Your task to perform on an android device: Open Google Maps and go to "Timeline" Image 0: 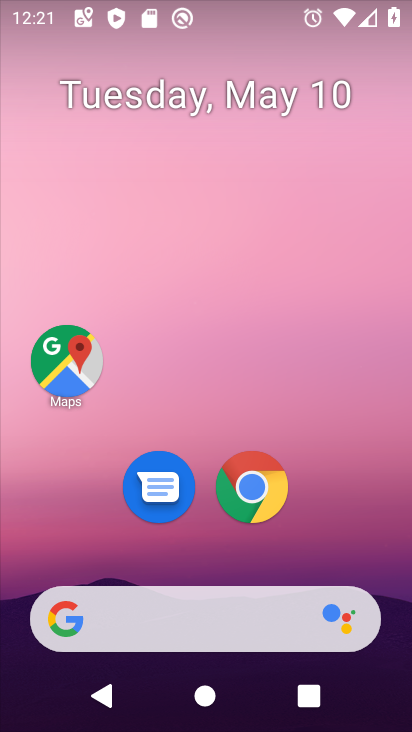
Step 0: drag from (347, 554) to (331, 128)
Your task to perform on an android device: Open Google Maps and go to "Timeline" Image 1: 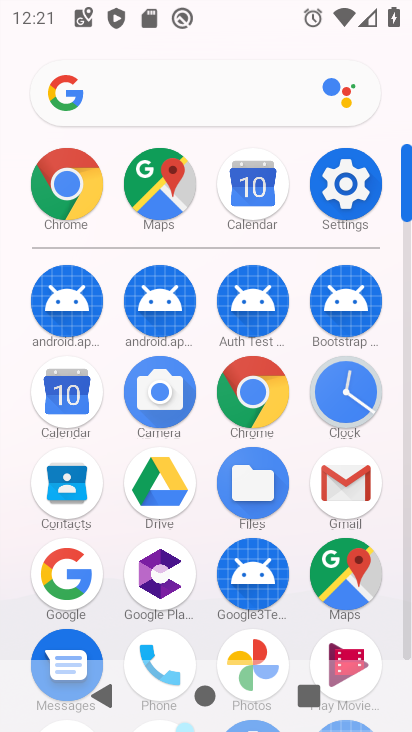
Step 1: click (361, 603)
Your task to perform on an android device: Open Google Maps and go to "Timeline" Image 2: 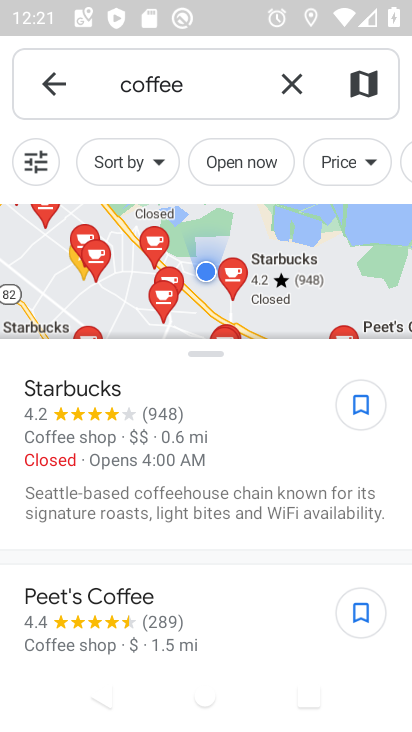
Step 2: click (63, 89)
Your task to perform on an android device: Open Google Maps and go to "Timeline" Image 3: 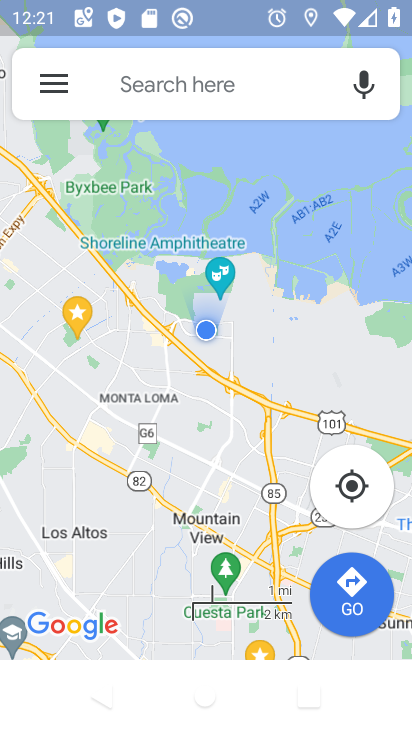
Step 3: click (63, 89)
Your task to perform on an android device: Open Google Maps and go to "Timeline" Image 4: 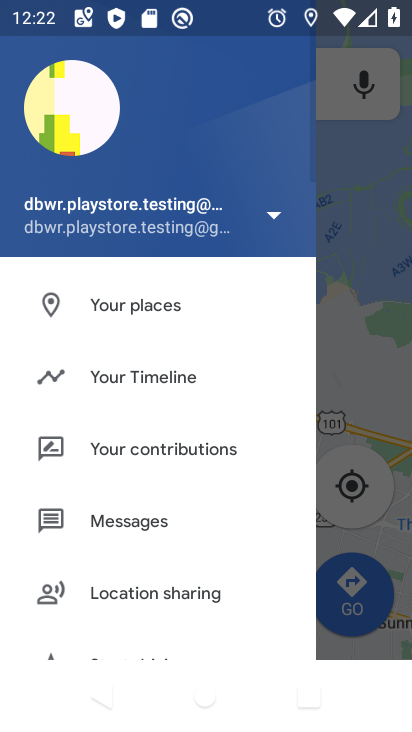
Step 4: click (125, 395)
Your task to perform on an android device: Open Google Maps and go to "Timeline" Image 5: 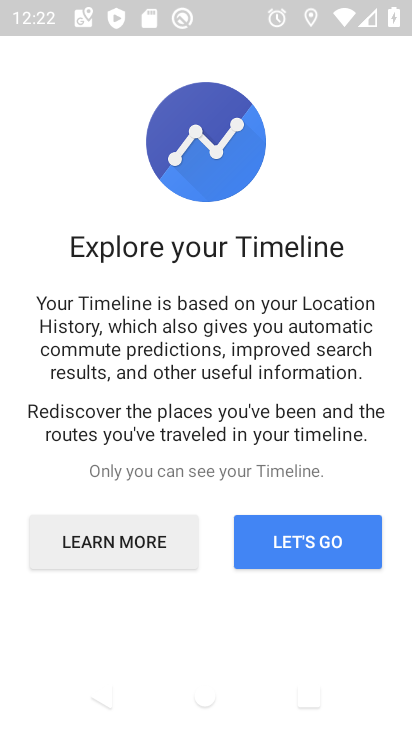
Step 5: task complete